Your task to perform on an android device: set the timer Image 0: 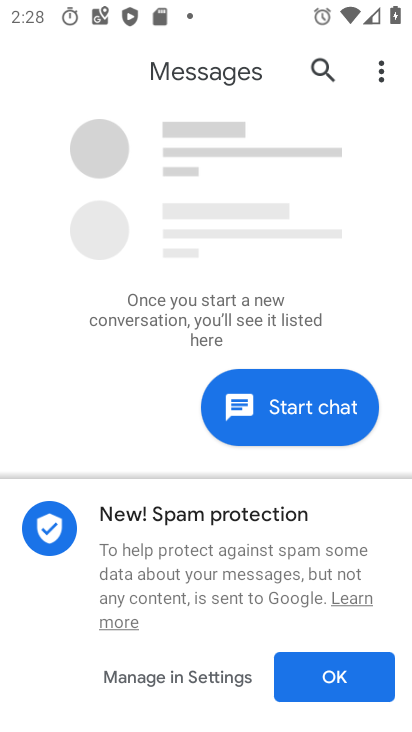
Step 0: click (348, 588)
Your task to perform on an android device: set the timer Image 1: 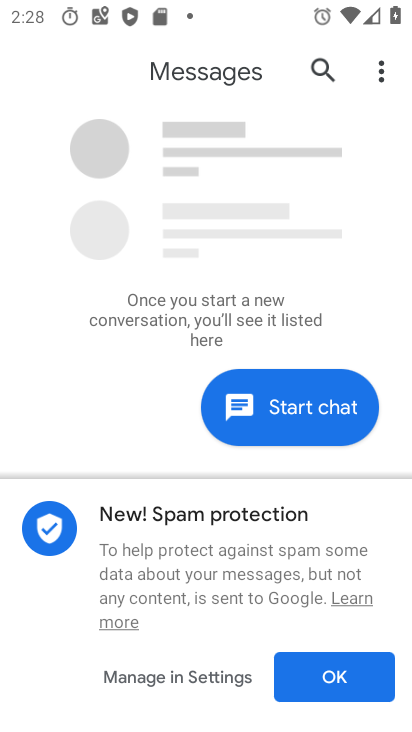
Step 1: press home button
Your task to perform on an android device: set the timer Image 2: 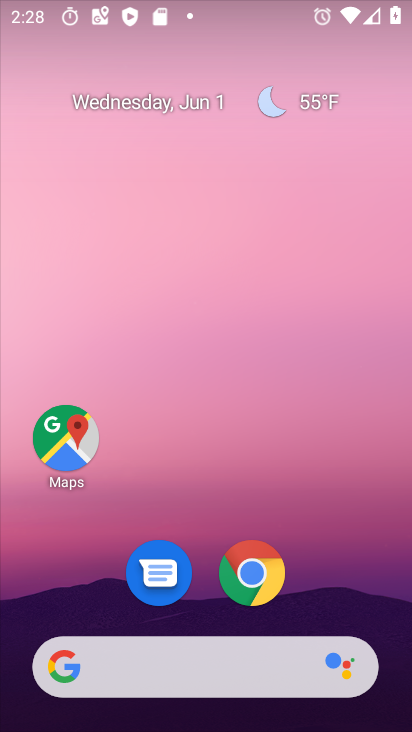
Step 2: drag from (365, 521) to (401, 86)
Your task to perform on an android device: set the timer Image 3: 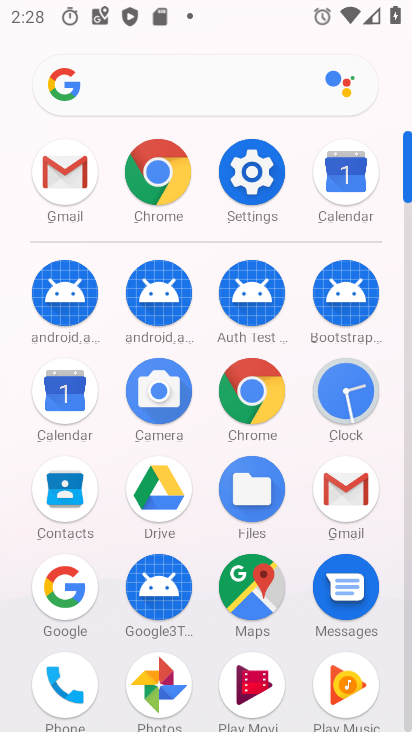
Step 3: click (349, 382)
Your task to perform on an android device: set the timer Image 4: 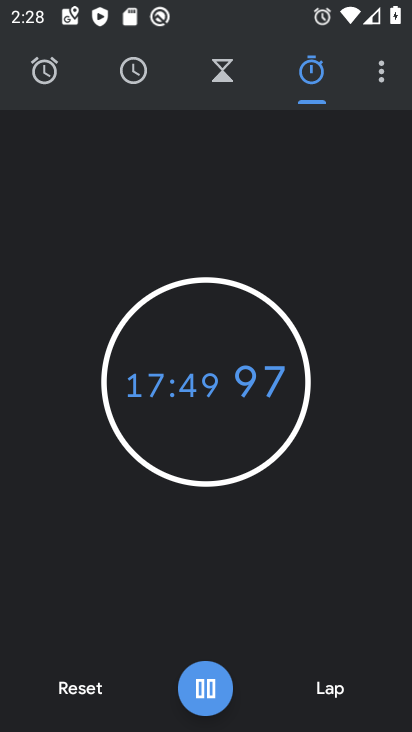
Step 4: click (226, 100)
Your task to perform on an android device: set the timer Image 5: 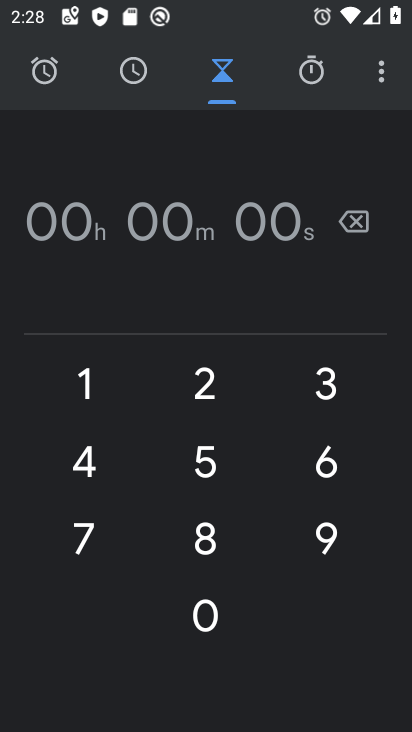
Step 5: click (217, 403)
Your task to perform on an android device: set the timer Image 6: 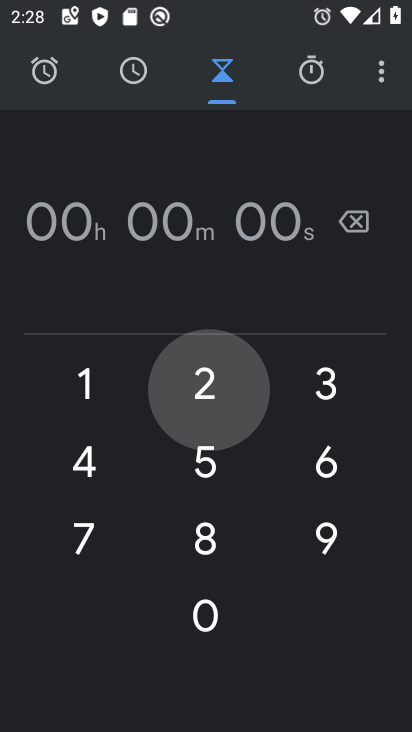
Step 6: click (203, 476)
Your task to perform on an android device: set the timer Image 7: 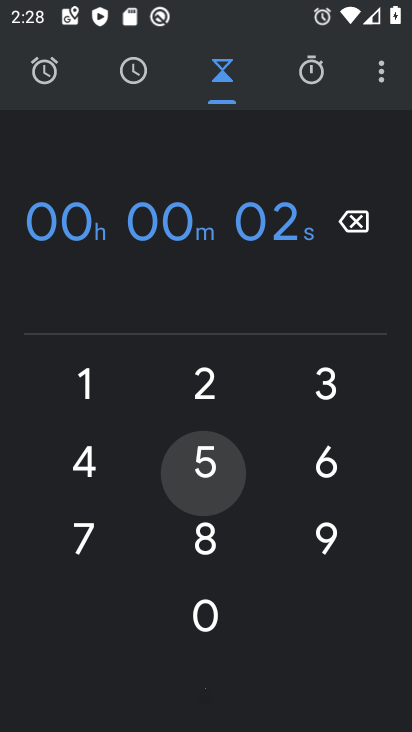
Step 7: drag from (206, 391) to (208, 430)
Your task to perform on an android device: set the timer Image 8: 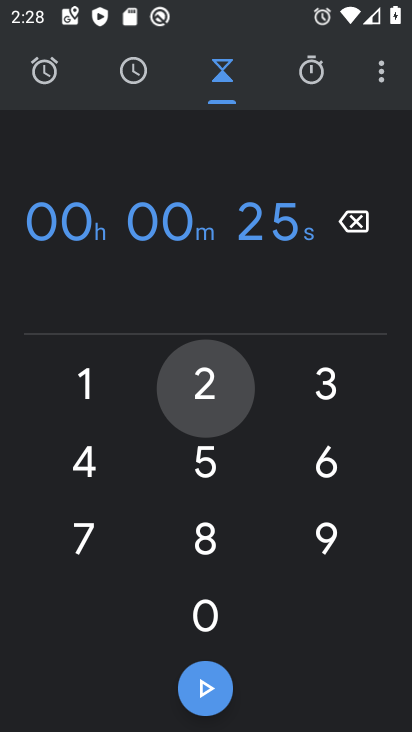
Step 8: drag from (207, 476) to (208, 435)
Your task to perform on an android device: set the timer Image 9: 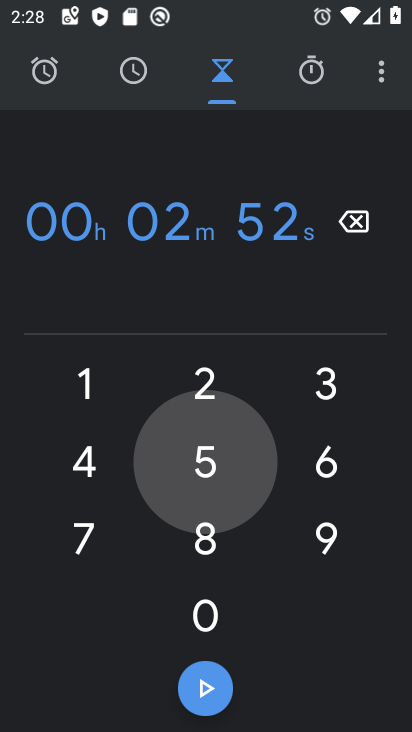
Step 9: click (208, 466)
Your task to perform on an android device: set the timer Image 10: 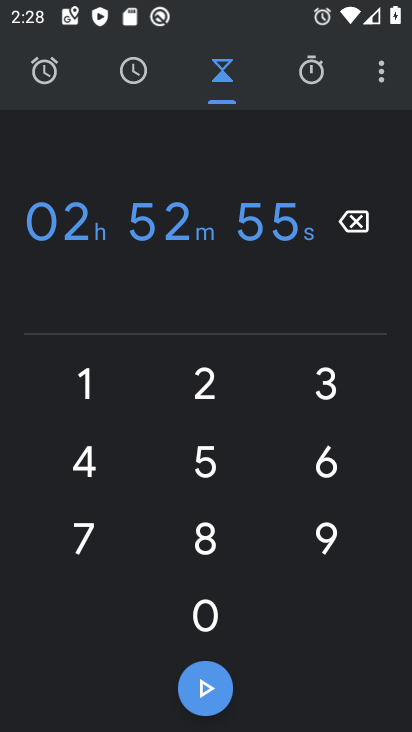
Step 10: click (203, 439)
Your task to perform on an android device: set the timer Image 11: 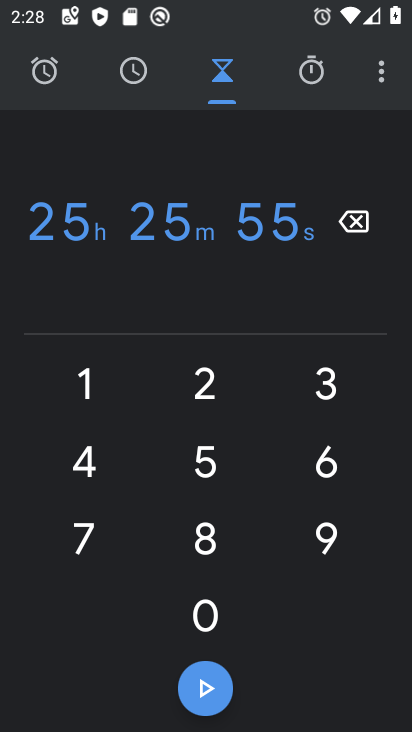
Step 11: click (203, 687)
Your task to perform on an android device: set the timer Image 12: 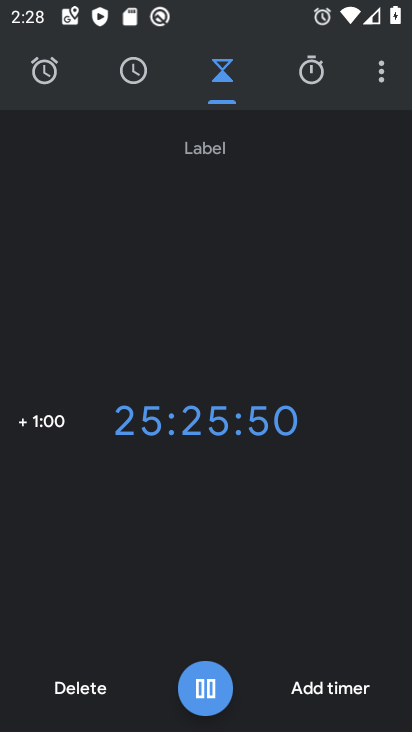
Step 12: task complete